Your task to perform on an android device: Go to wifi settings Image 0: 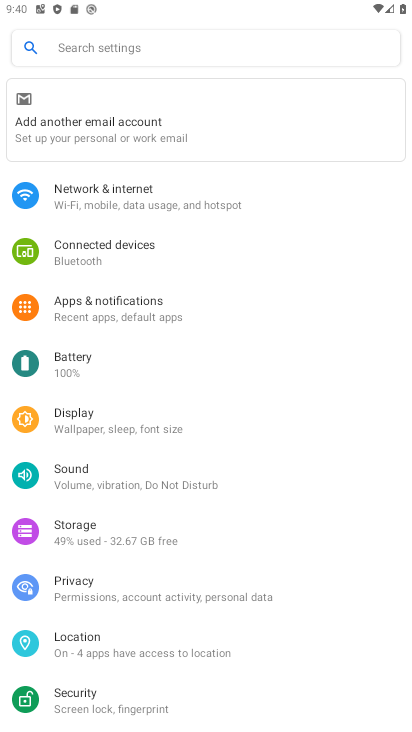
Step 0: click (120, 198)
Your task to perform on an android device: Go to wifi settings Image 1: 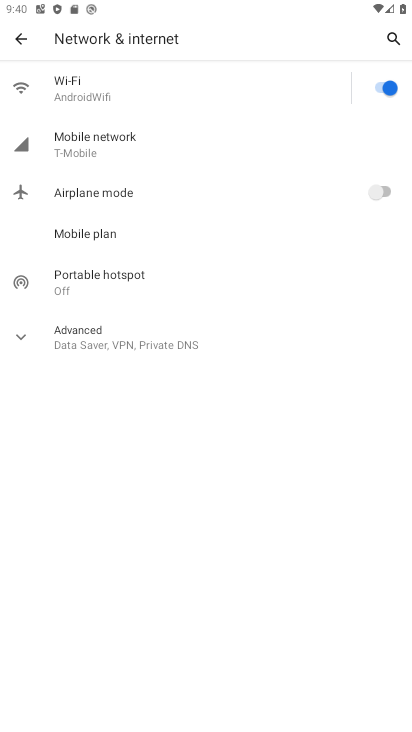
Step 1: click (135, 94)
Your task to perform on an android device: Go to wifi settings Image 2: 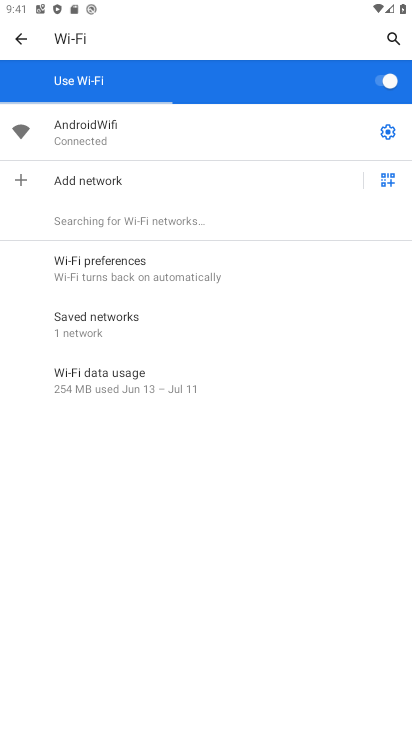
Step 2: task complete